Your task to perform on an android device: Go to Yahoo.com Image 0: 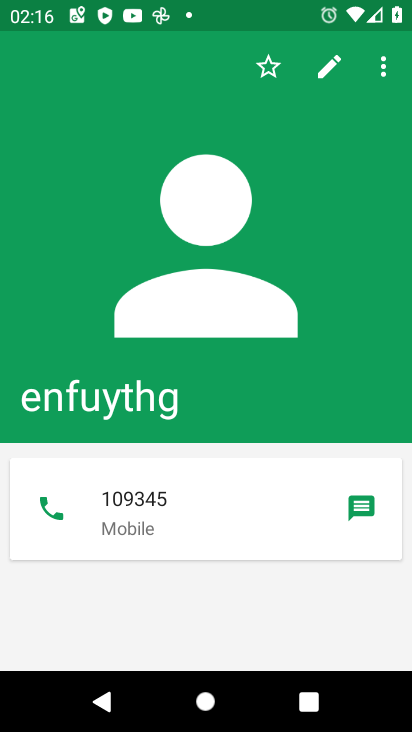
Step 0: press home button
Your task to perform on an android device: Go to Yahoo.com Image 1: 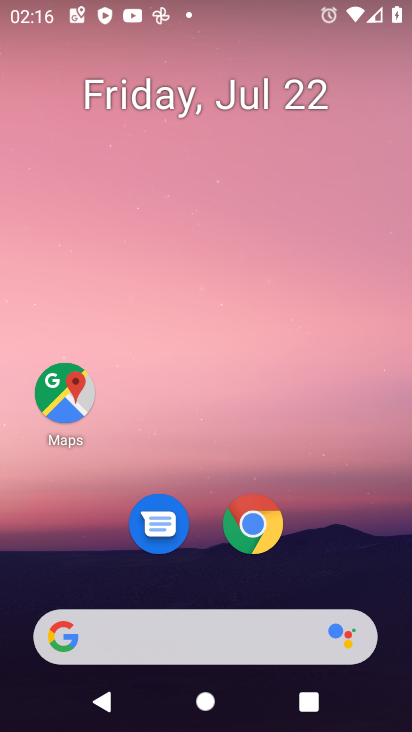
Step 1: click (247, 523)
Your task to perform on an android device: Go to Yahoo.com Image 2: 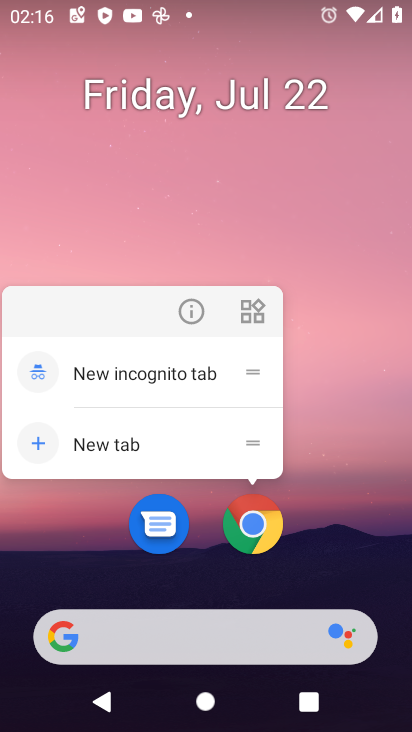
Step 2: click (249, 533)
Your task to perform on an android device: Go to Yahoo.com Image 3: 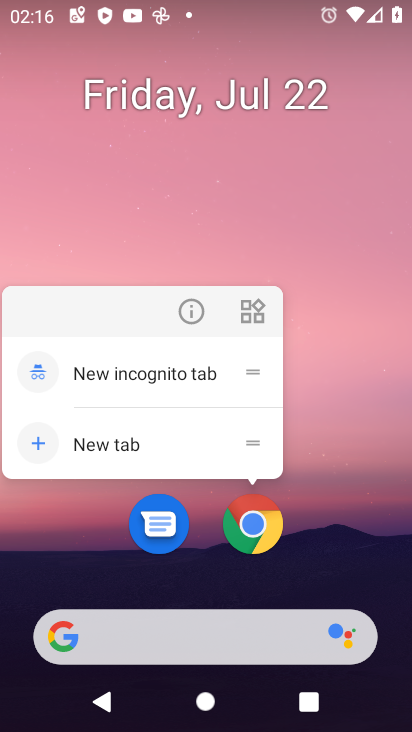
Step 3: click (261, 520)
Your task to perform on an android device: Go to Yahoo.com Image 4: 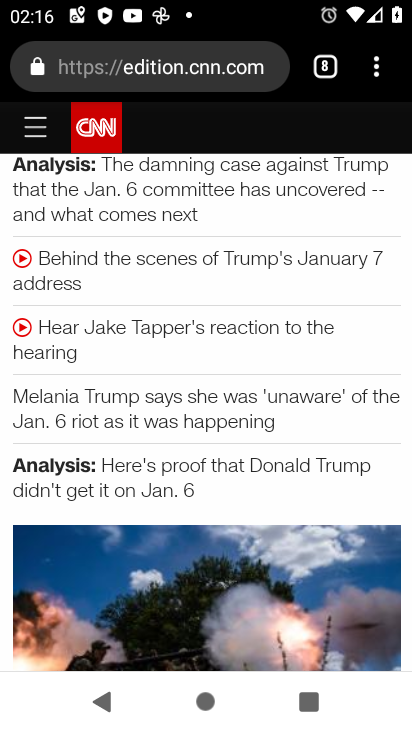
Step 4: drag from (381, 67) to (249, 130)
Your task to perform on an android device: Go to Yahoo.com Image 5: 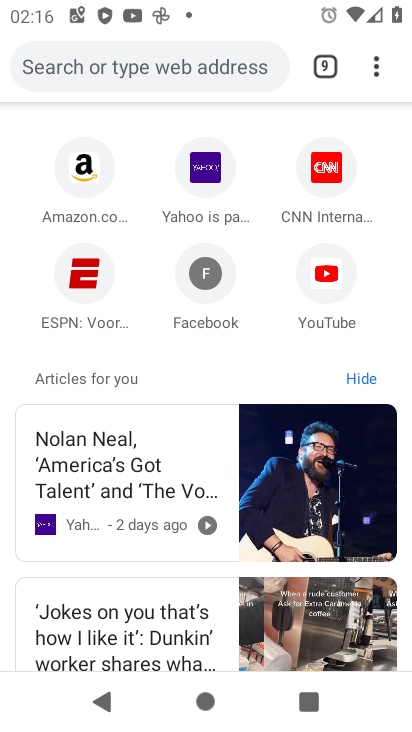
Step 5: click (212, 177)
Your task to perform on an android device: Go to Yahoo.com Image 6: 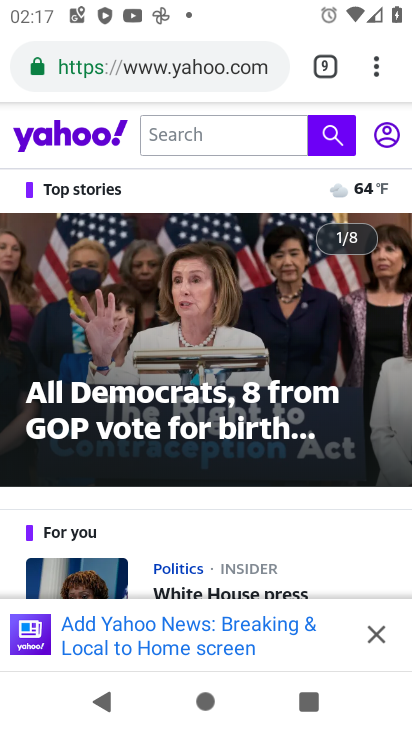
Step 6: task complete